Your task to perform on an android device: move an email to a new category in the gmail app Image 0: 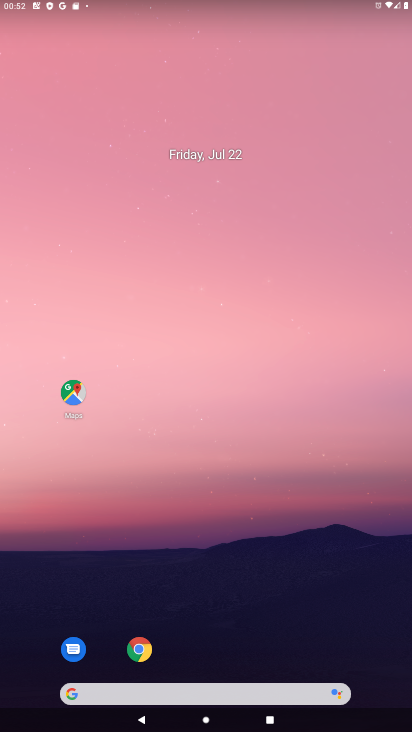
Step 0: drag from (269, 631) to (223, 31)
Your task to perform on an android device: move an email to a new category in the gmail app Image 1: 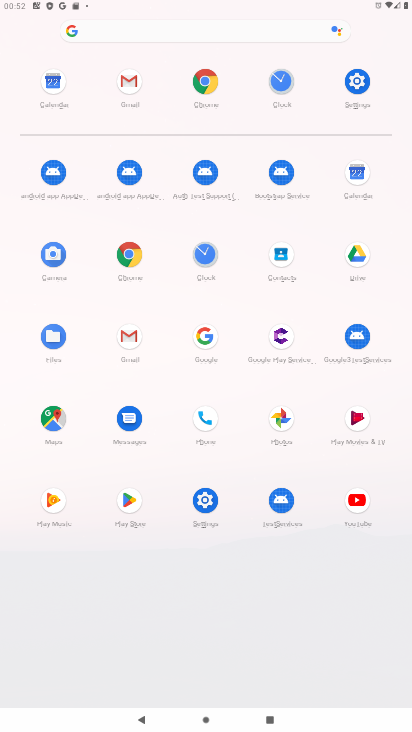
Step 1: click (122, 330)
Your task to perform on an android device: move an email to a new category in the gmail app Image 2: 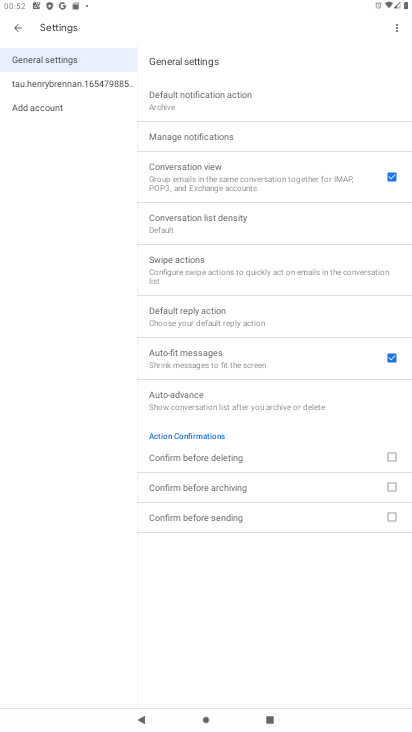
Step 2: click (15, 25)
Your task to perform on an android device: move an email to a new category in the gmail app Image 3: 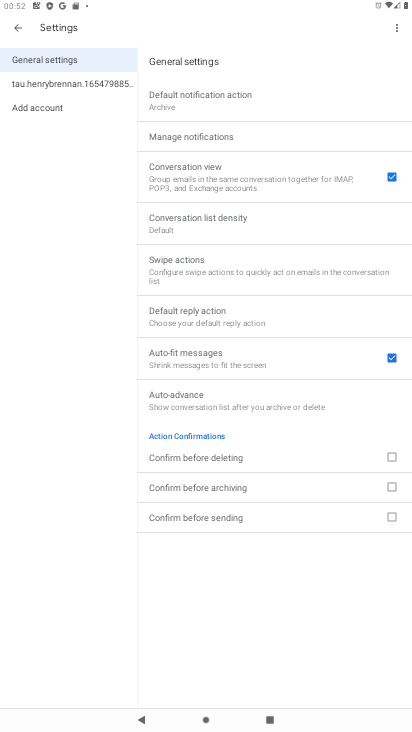
Step 3: click (9, 20)
Your task to perform on an android device: move an email to a new category in the gmail app Image 4: 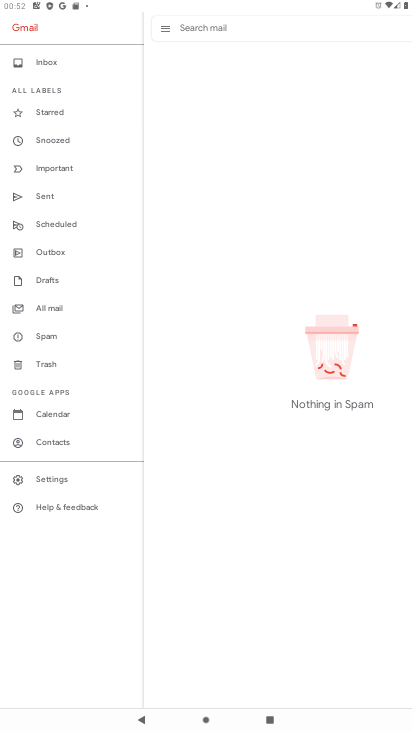
Step 4: click (53, 308)
Your task to perform on an android device: move an email to a new category in the gmail app Image 5: 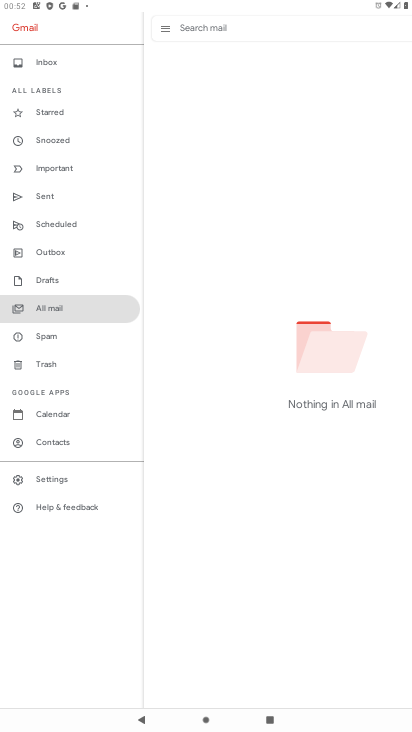
Step 5: task complete